Your task to perform on an android device: Look up the best rated gaming chair on Target. Image 0: 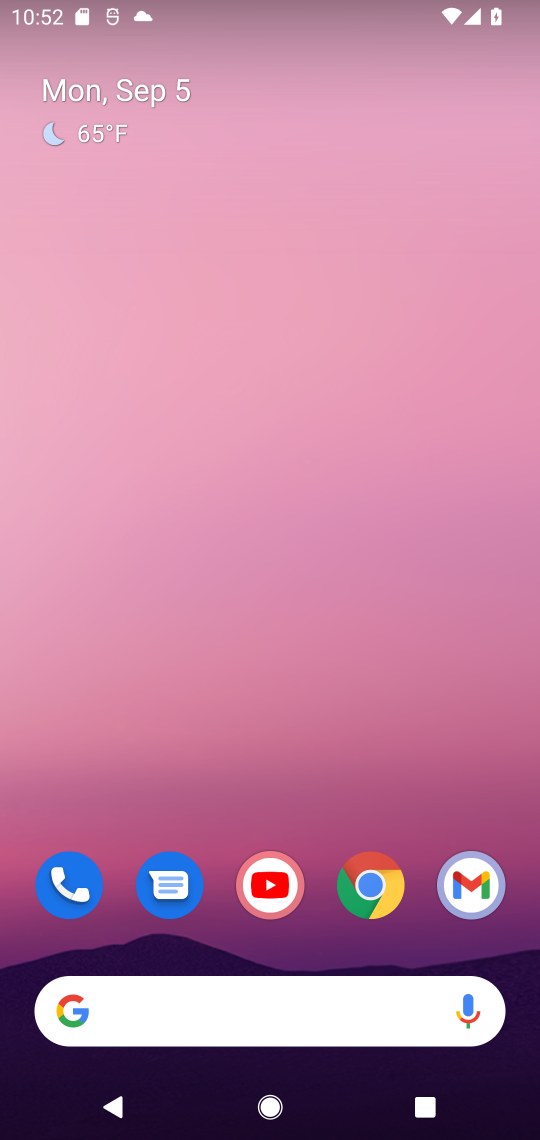
Step 0: drag from (315, 960) to (282, 75)
Your task to perform on an android device: Look up the best rated gaming chair on Target. Image 1: 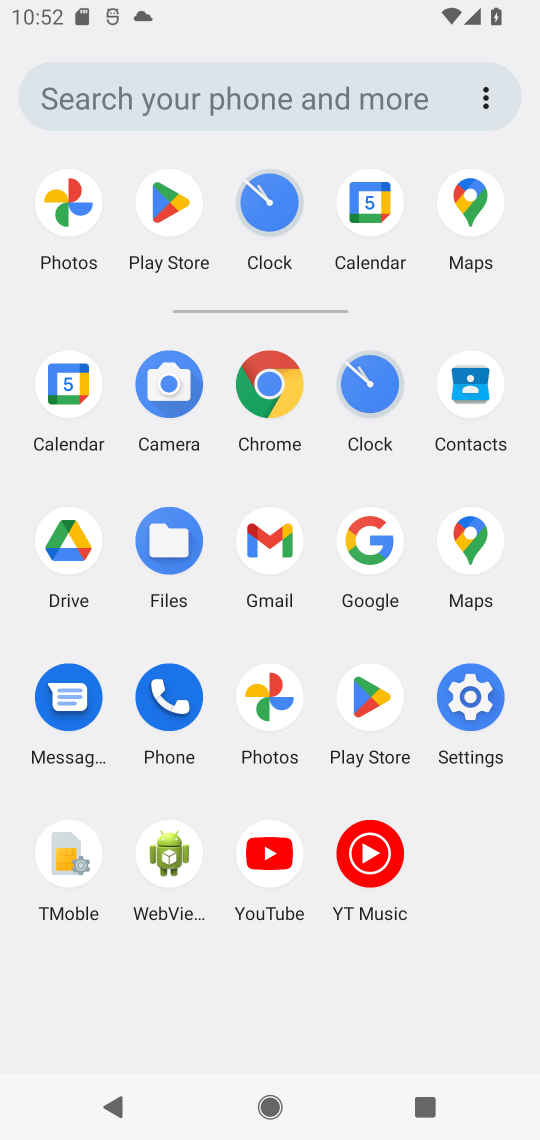
Step 1: click (369, 543)
Your task to perform on an android device: Look up the best rated gaming chair on Target. Image 2: 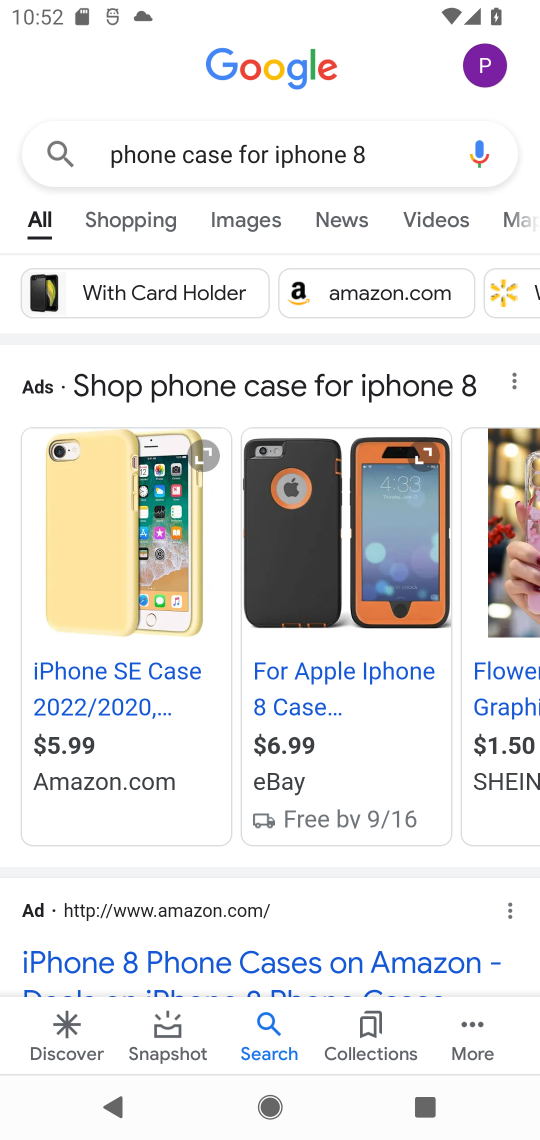
Step 2: click (380, 159)
Your task to perform on an android device: Look up the best rated gaming chair on Target. Image 3: 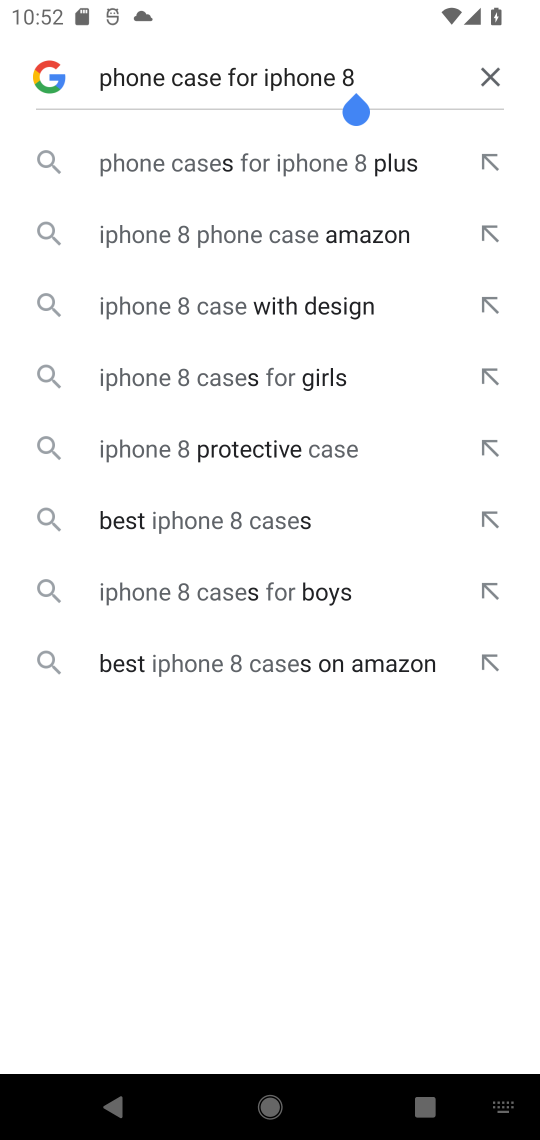
Step 3: click (484, 72)
Your task to perform on an android device: Look up the best rated gaming chair on Target. Image 4: 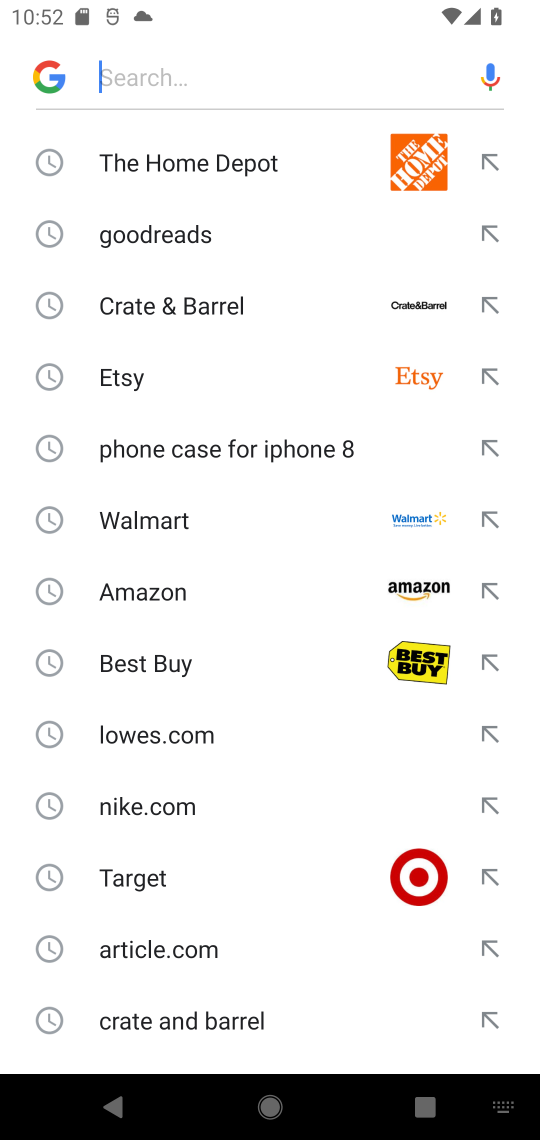
Step 4: type "Target"
Your task to perform on an android device: Look up the best rated gaming chair on Target. Image 5: 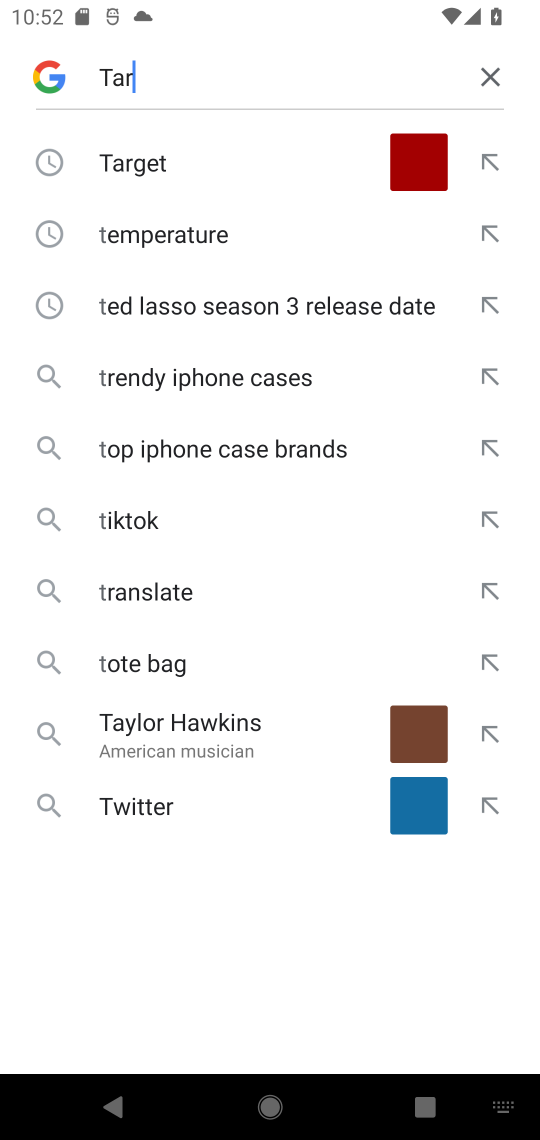
Step 5: type ""
Your task to perform on an android device: Look up the best rated gaming chair on Target. Image 6: 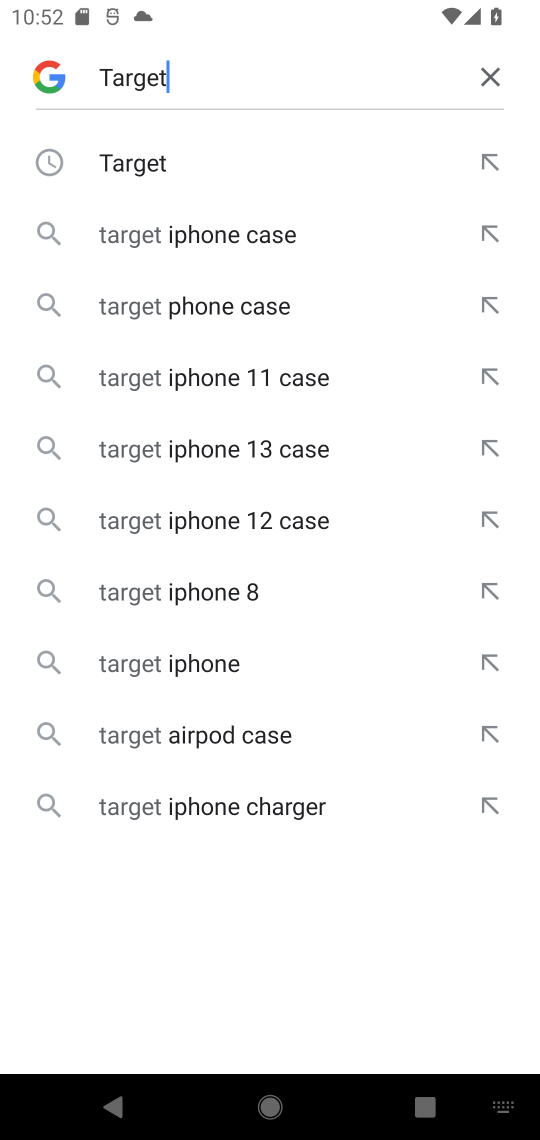
Step 6: click (124, 167)
Your task to perform on an android device: Look up the best rated gaming chair on Target. Image 7: 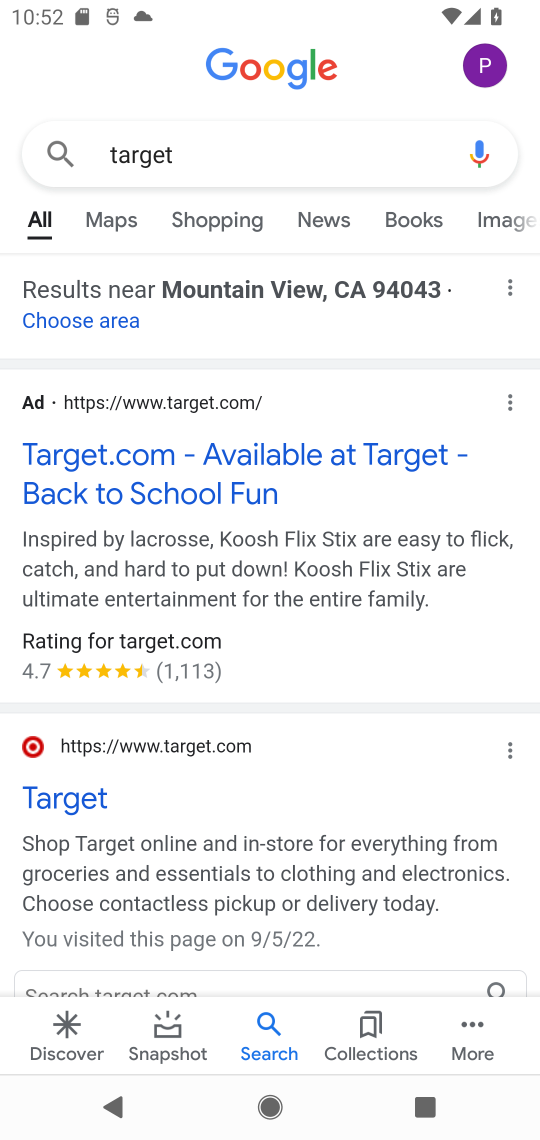
Step 7: click (145, 466)
Your task to perform on an android device: Look up the best rated gaming chair on Target. Image 8: 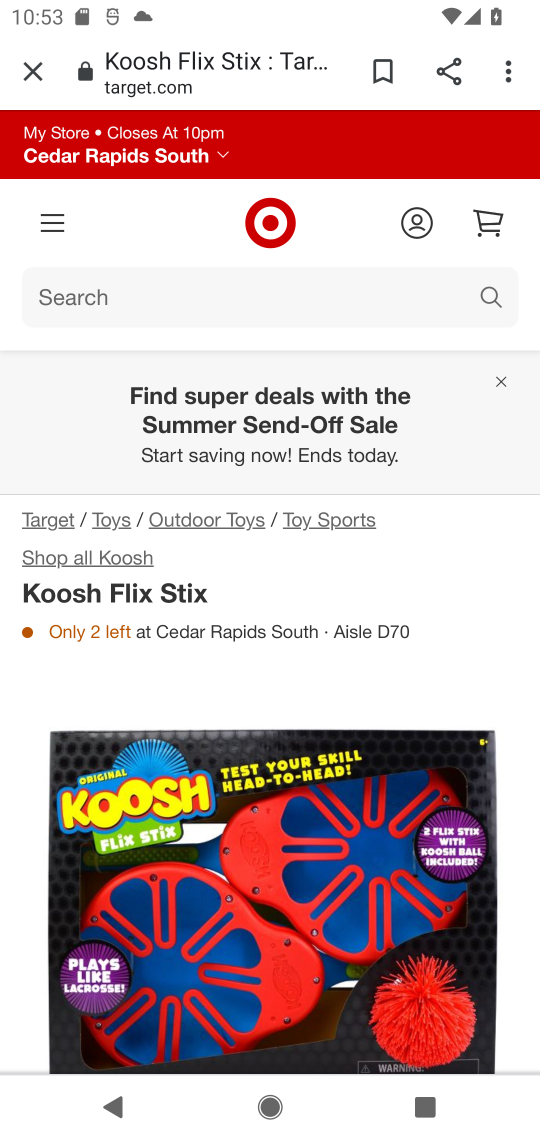
Step 8: click (250, 304)
Your task to perform on an android device: Look up the best rated gaming chair on Target. Image 9: 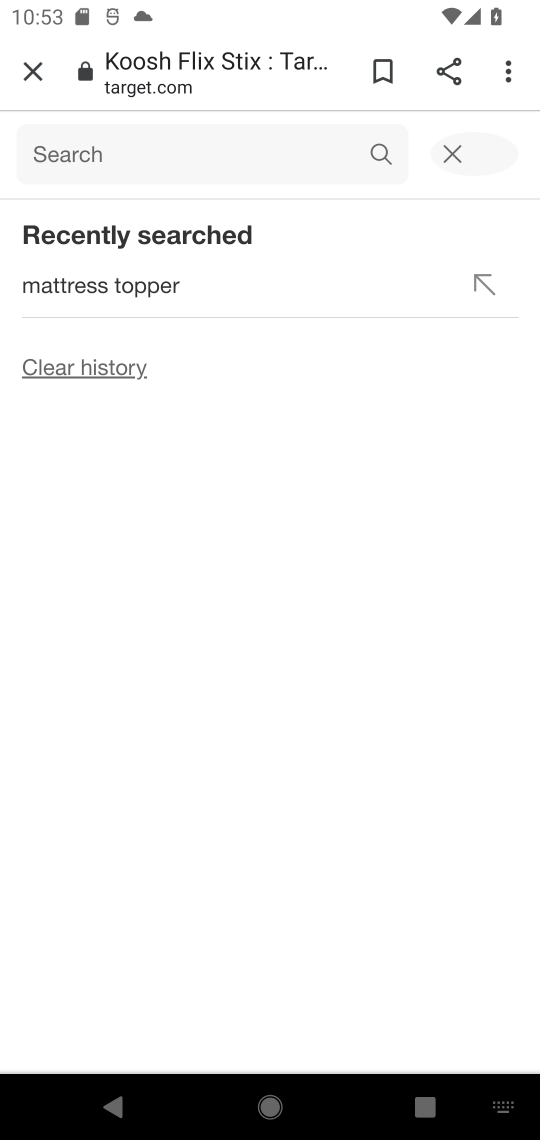
Step 9: type "gaming chair"
Your task to perform on an android device: Look up the best rated gaming chair on Target. Image 10: 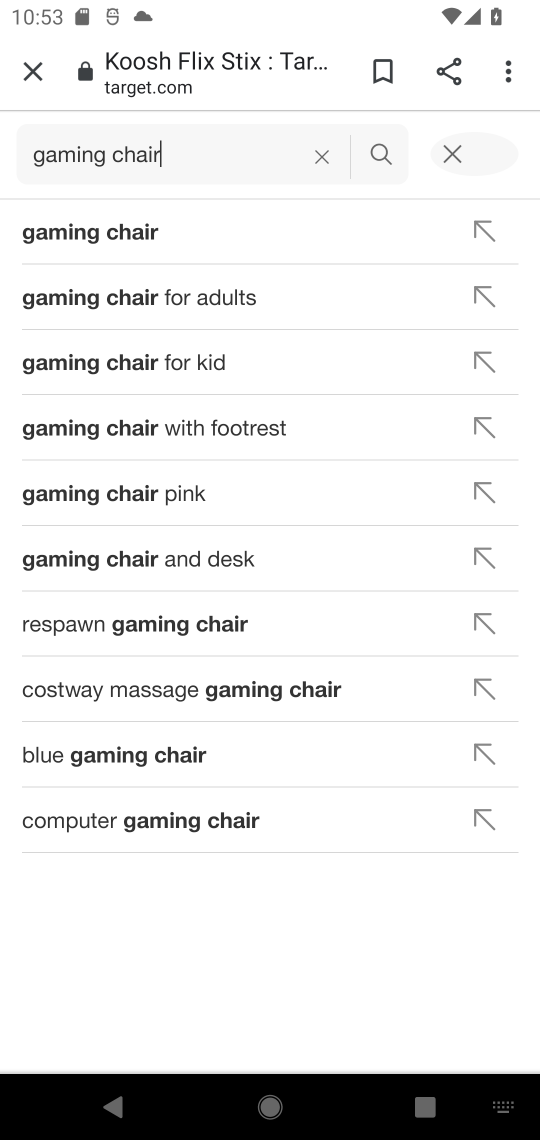
Step 10: click (100, 226)
Your task to perform on an android device: Look up the best rated gaming chair on Target. Image 11: 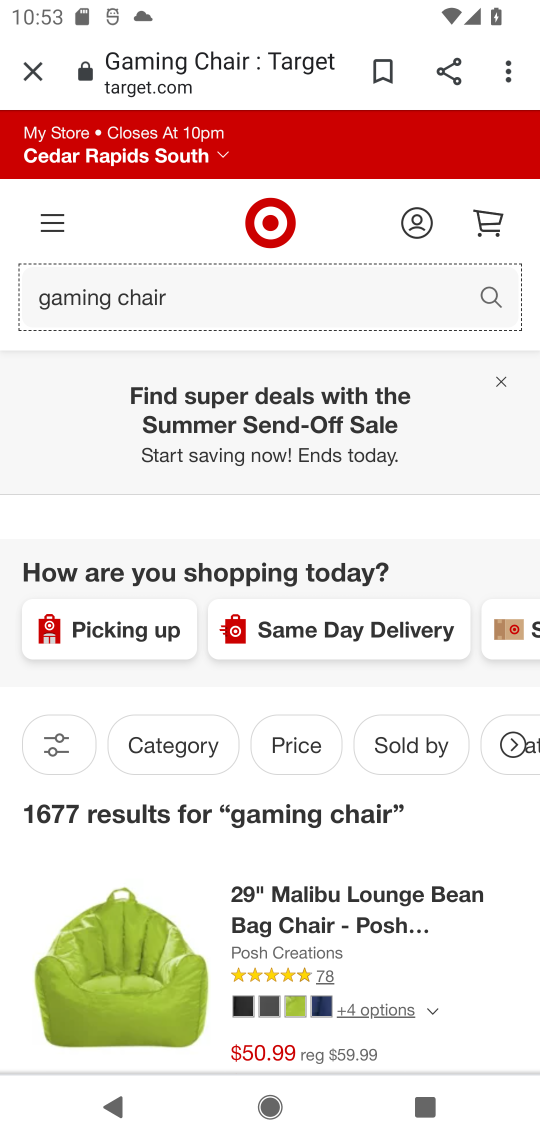
Step 11: task complete